Your task to perform on an android device: turn on sleep mode Image 0: 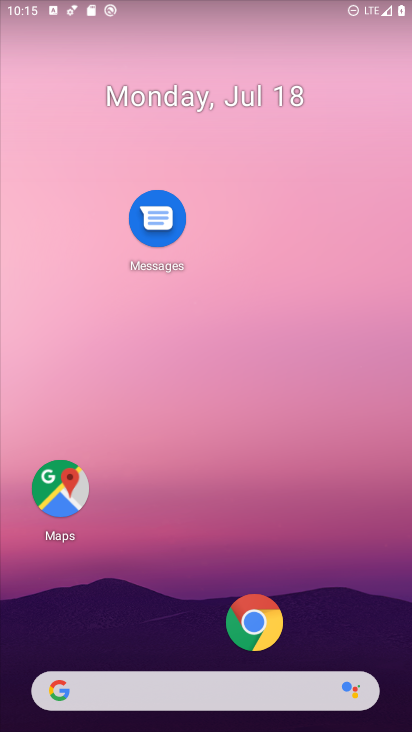
Step 0: drag from (142, 642) to (196, 176)
Your task to perform on an android device: turn on sleep mode Image 1: 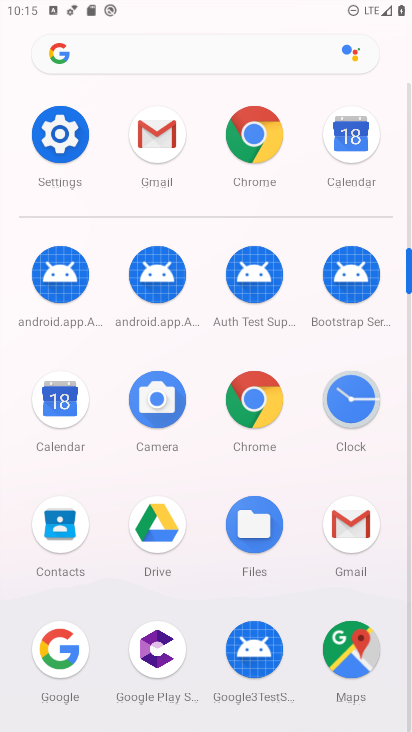
Step 1: click (52, 145)
Your task to perform on an android device: turn on sleep mode Image 2: 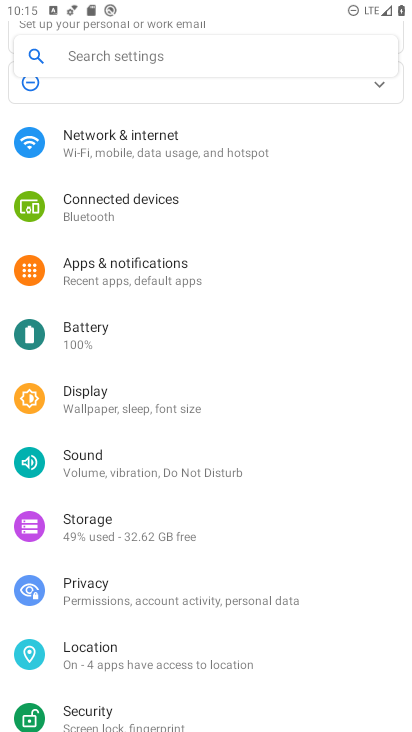
Step 2: click (138, 403)
Your task to perform on an android device: turn on sleep mode Image 3: 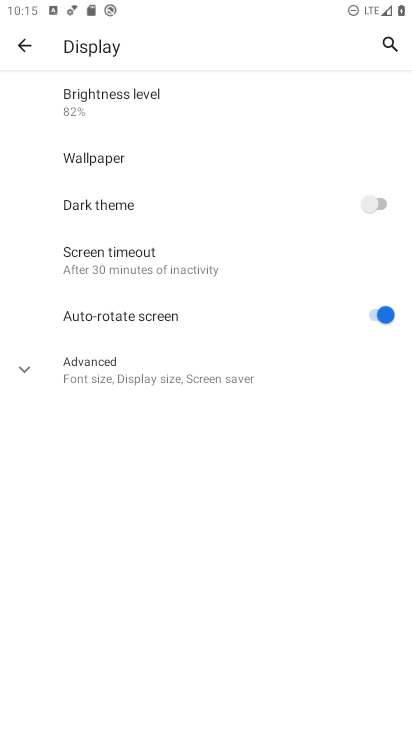
Step 3: task complete